Your task to perform on an android device: Search for sushi restaurants on Maps Image 0: 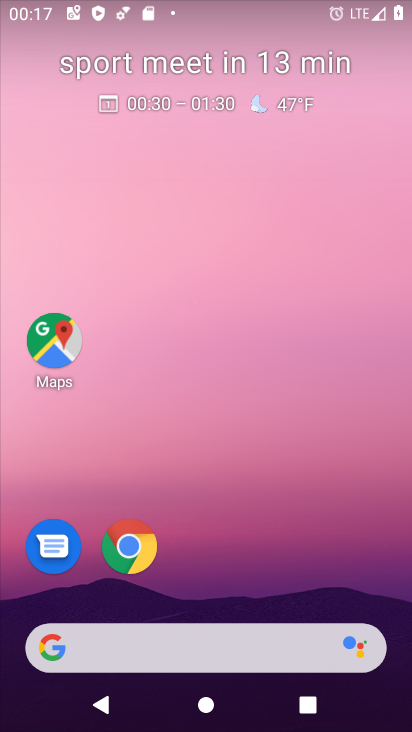
Step 0: click (47, 347)
Your task to perform on an android device: Search for sushi restaurants on Maps Image 1: 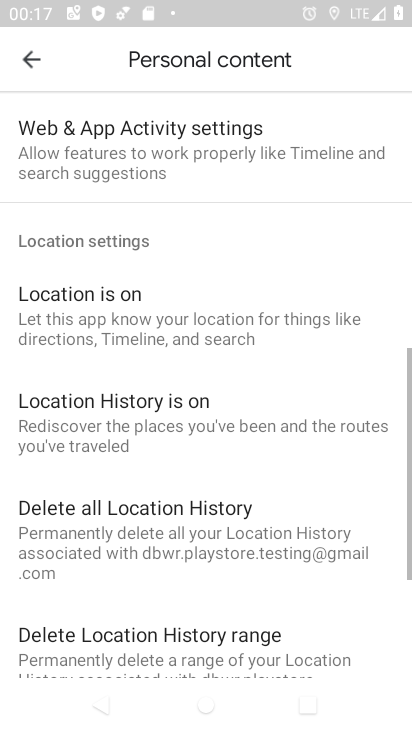
Step 1: click (26, 61)
Your task to perform on an android device: Search for sushi restaurants on Maps Image 2: 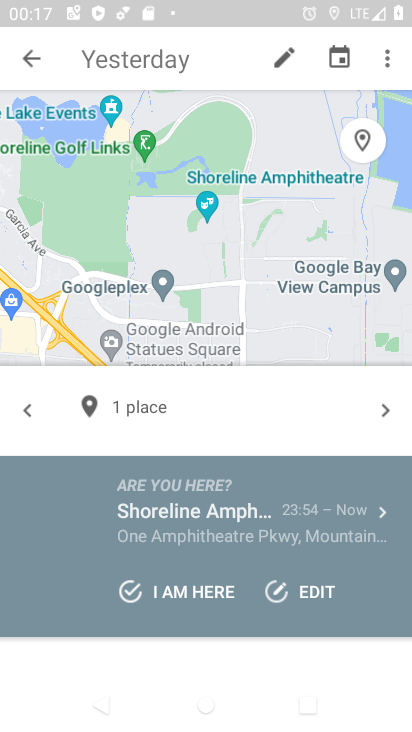
Step 2: click (27, 64)
Your task to perform on an android device: Search for sushi restaurants on Maps Image 3: 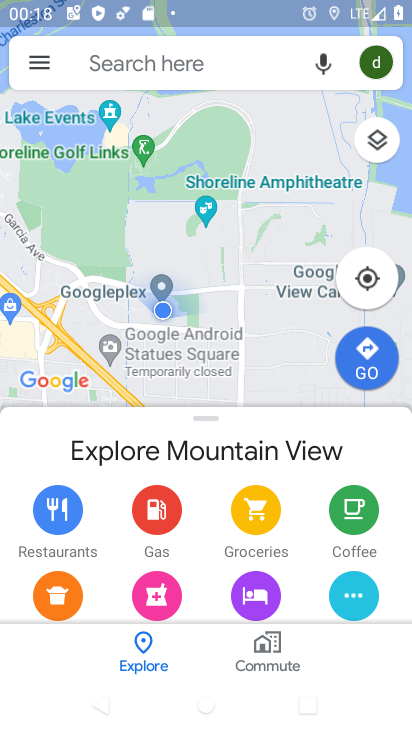
Step 3: click (146, 72)
Your task to perform on an android device: Search for sushi restaurants on Maps Image 4: 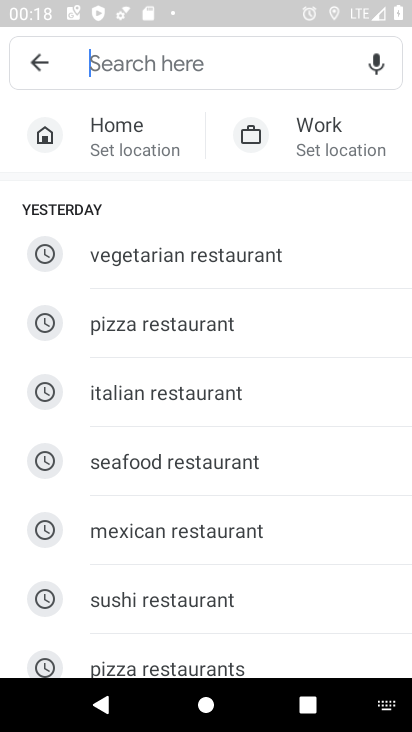
Step 4: type "sushi restaurant"
Your task to perform on an android device: Search for sushi restaurants on Maps Image 5: 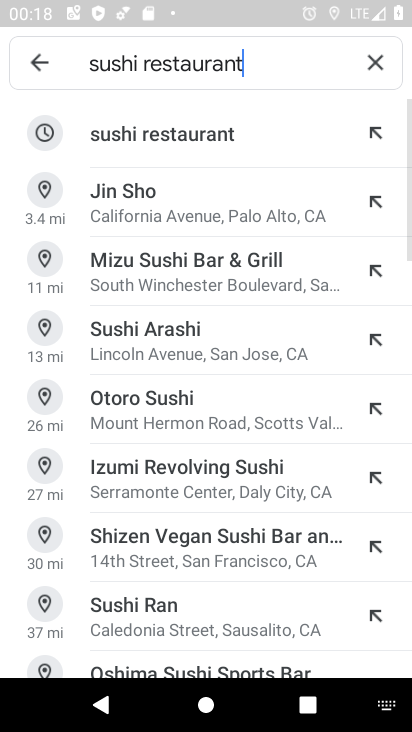
Step 5: click (177, 135)
Your task to perform on an android device: Search for sushi restaurants on Maps Image 6: 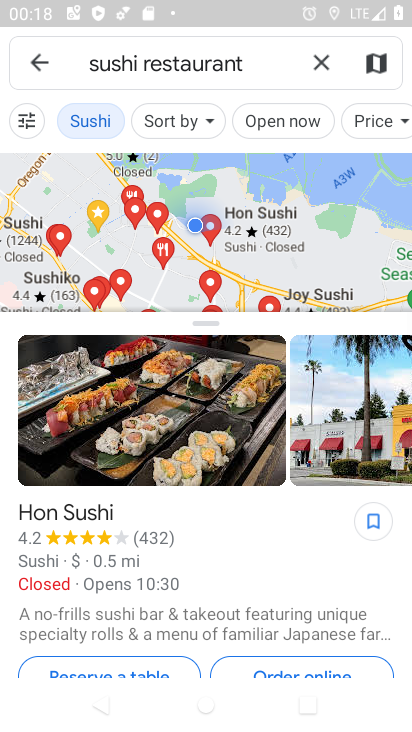
Step 6: task complete